Your task to perform on an android device: Open Maps and search for coffee Image 0: 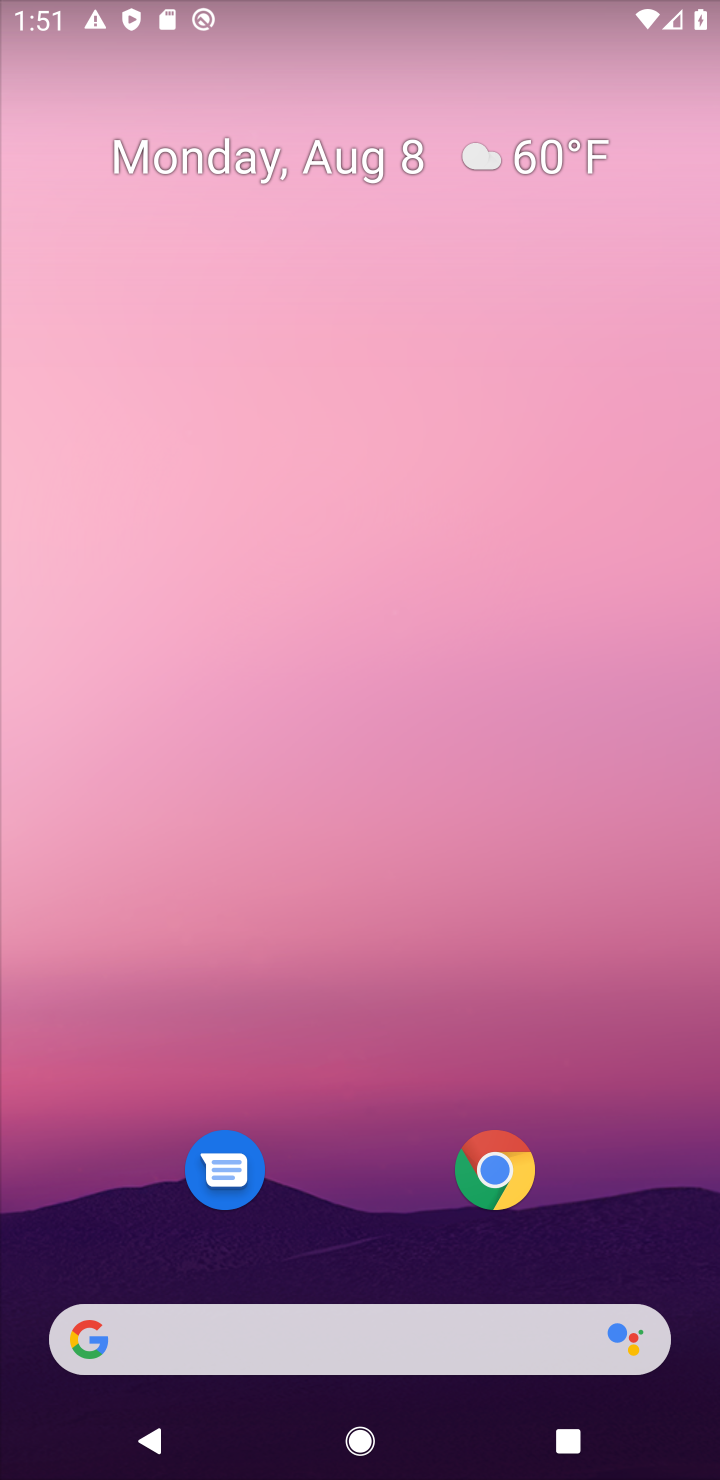
Step 0: drag from (408, 1137) to (524, 259)
Your task to perform on an android device: Open Maps and search for coffee Image 1: 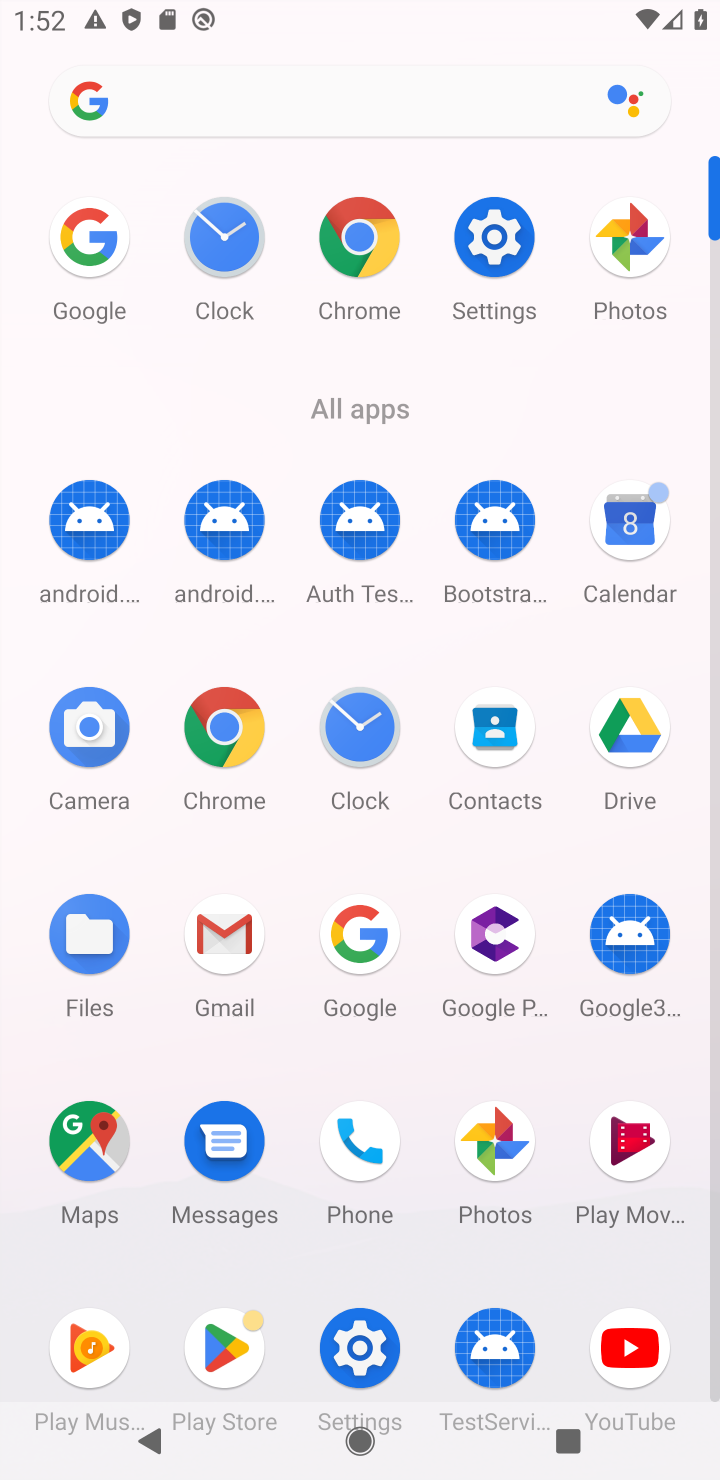
Step 1: click (103, 1134)
Your task to perform on an android device: Open Maps and search for coffee Image 2: 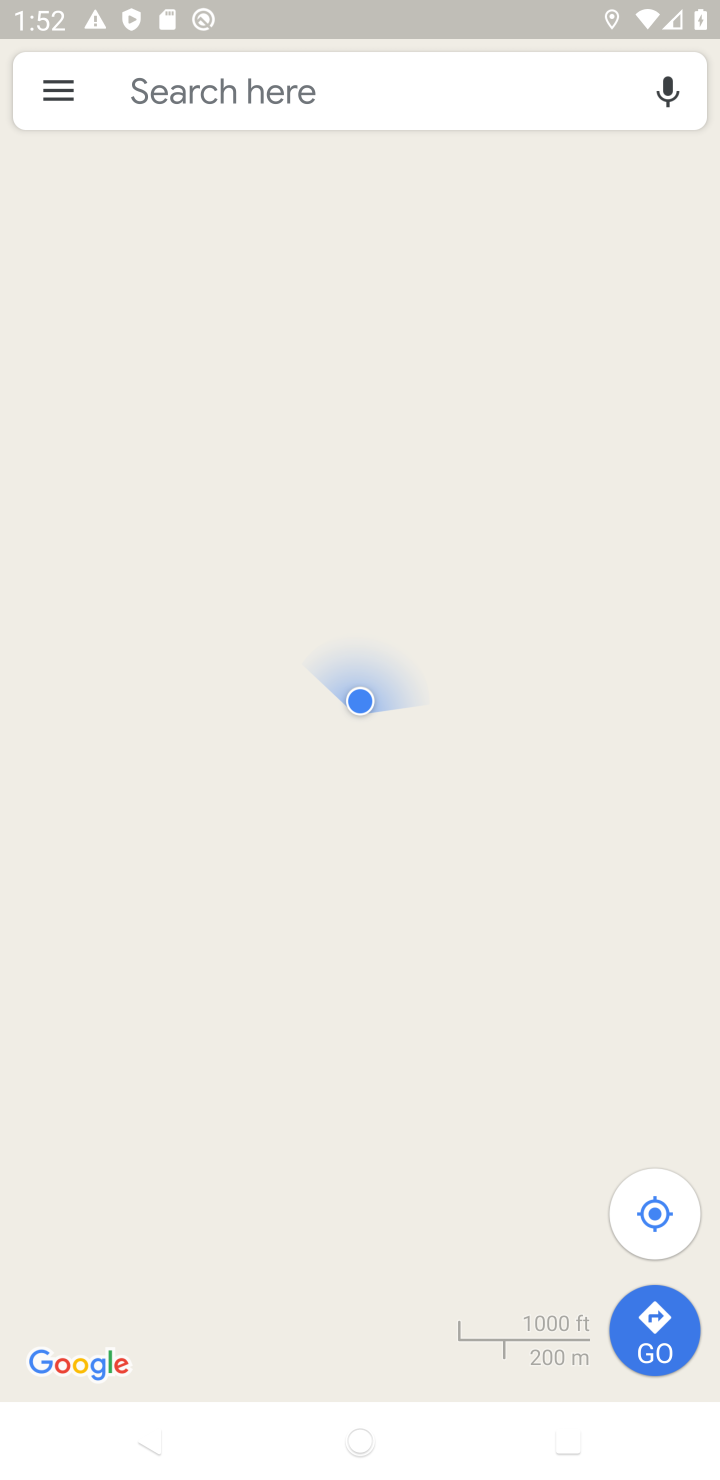
Step 2: click (439, 93)
Your task to perform on an android device: Open Maps and search for coffee Image 3: 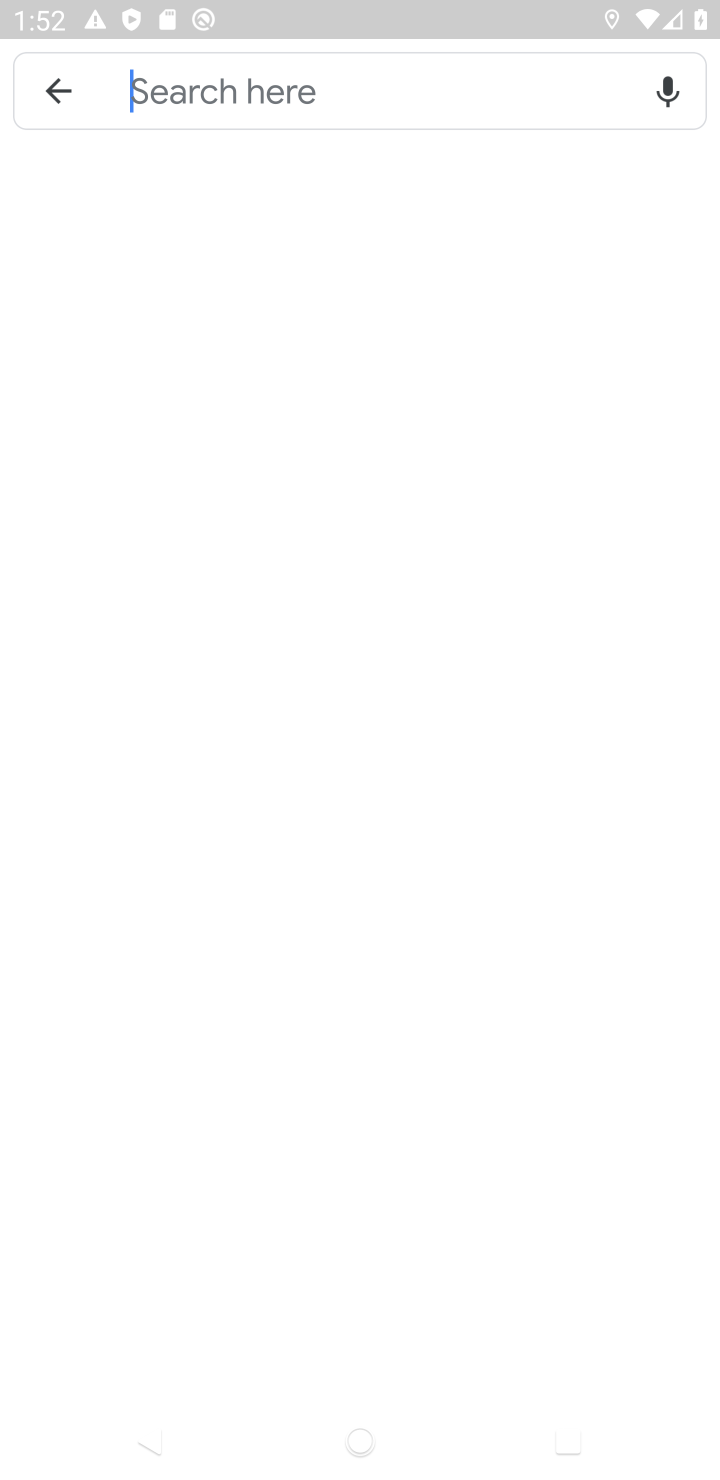
Step 3: type "coffee"
Your task to perform on an android device: Open Maps and search for coffee Image 4: 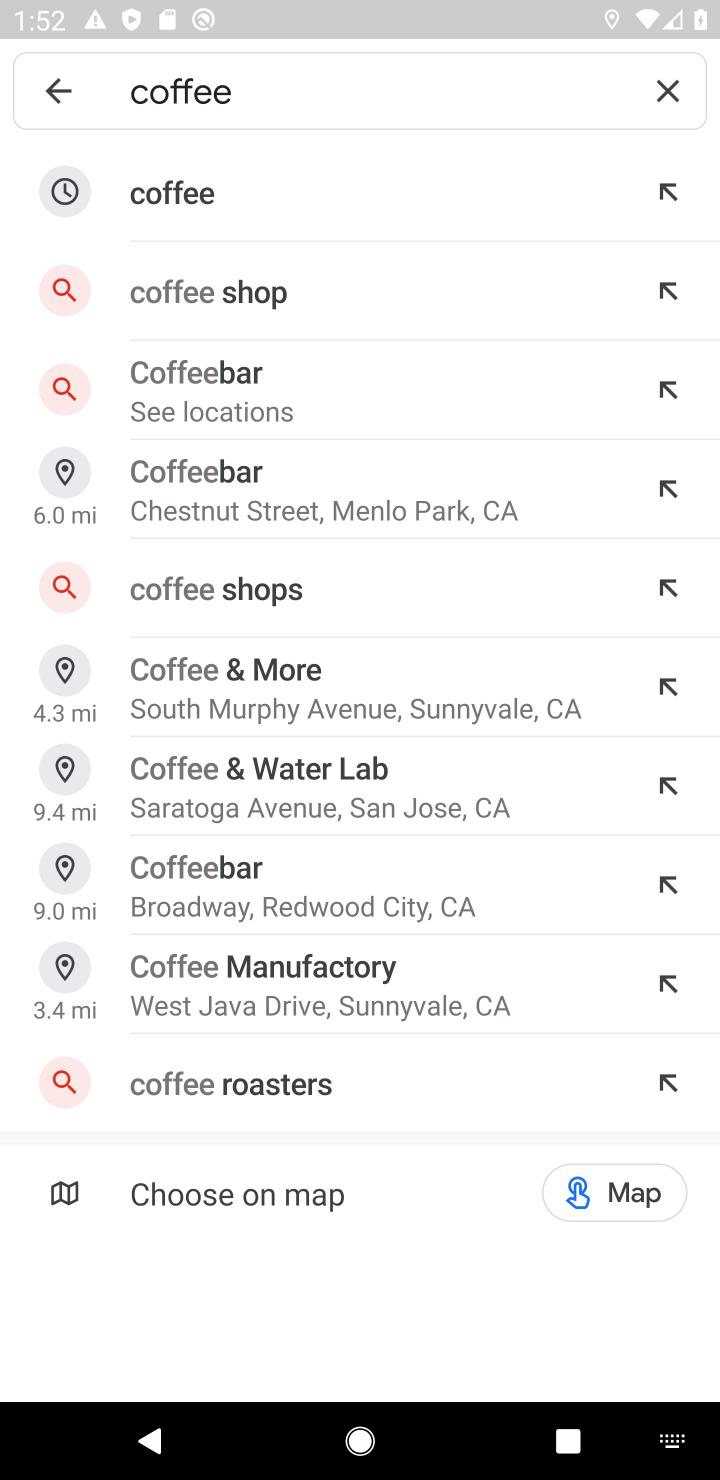
Step 4: click (223, 189)
Your task to perform on an android device: Open Maps and search for coffee Image 5: 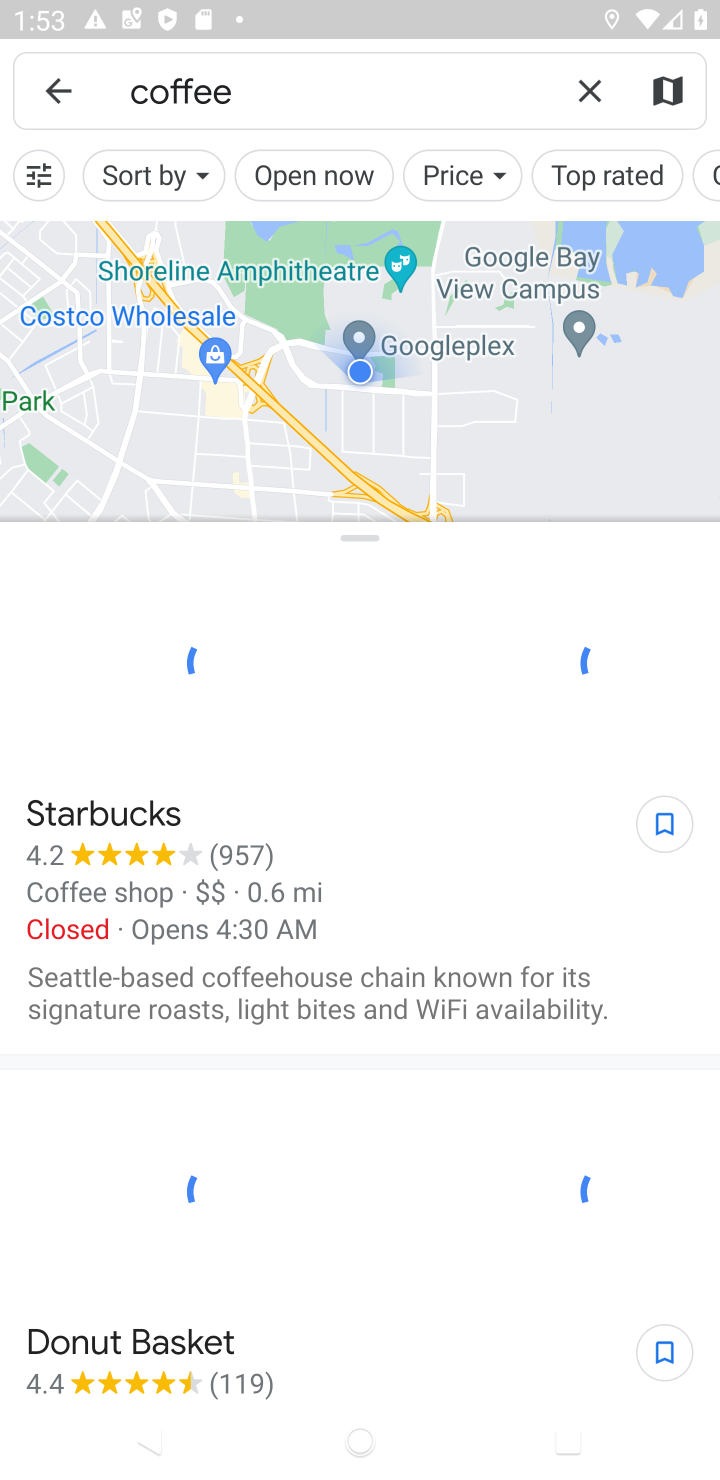
Step 5: task complete